Your task to perform on an android device: Open the web browser Image 0: 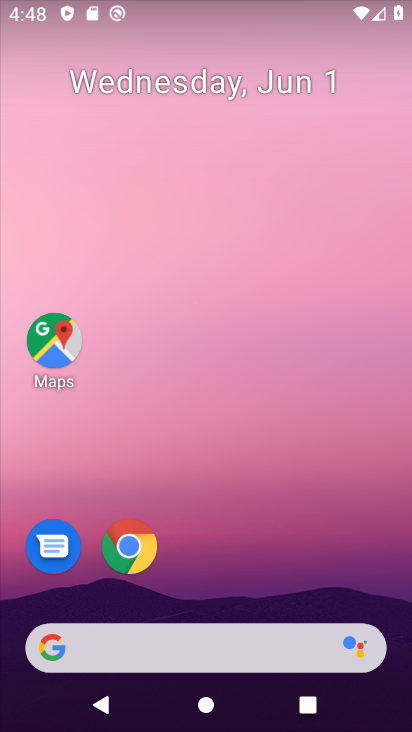
Step 0: drag from (212, 629) to (234, 124)
Your task to perform on an android device: Open the web browser Image 1: 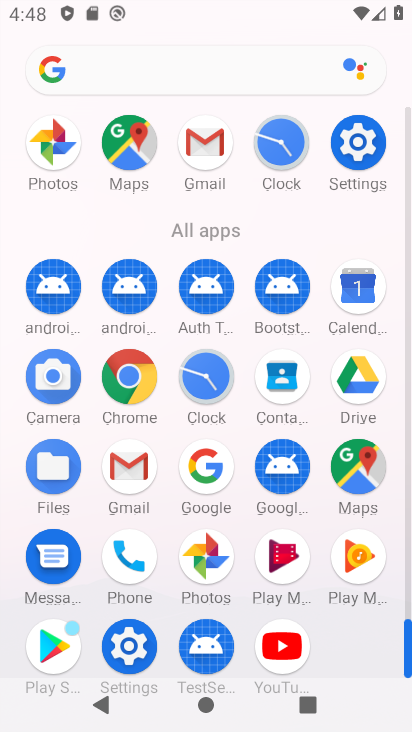
Step 1: click (201, 470)
Your task to perform on an android device: Open the web browser Image 2: 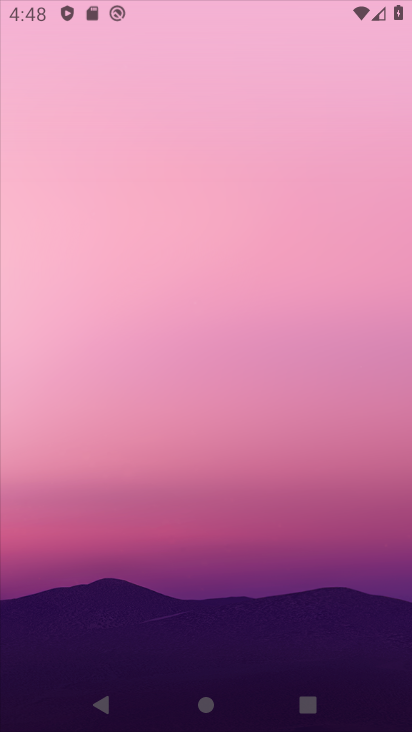
Step 2: task complete